Your task to perform on an android device: empty trash in the gmail app Image 0: 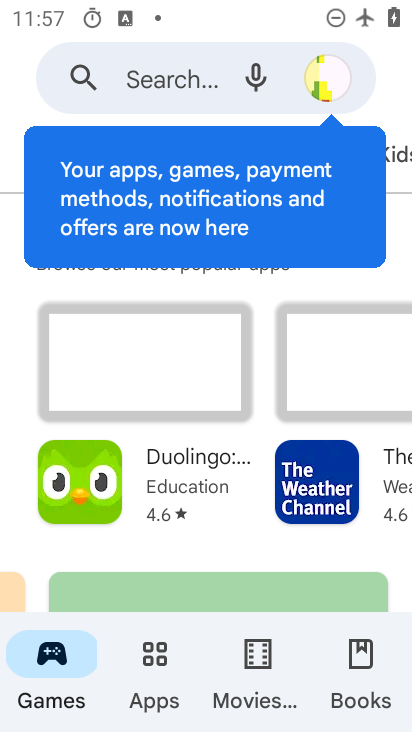
Step 0: press home button
Your task to perform on an android device: empty trash in the gmail app Image 1: 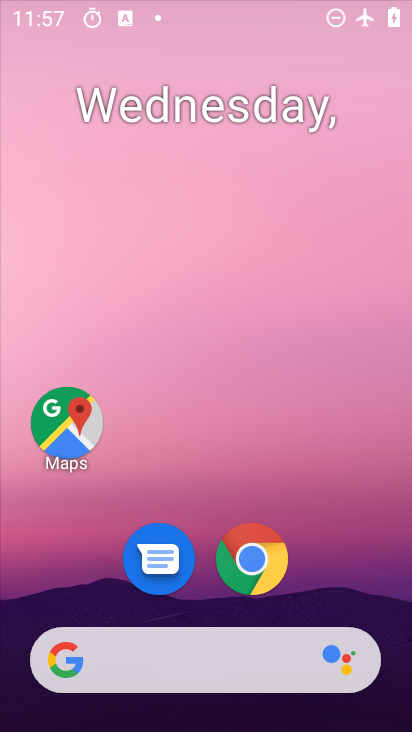
Step 1: drag from (216, 640) to (217, 126)
Your task to perform on an android device: empty trash in the gmail app Image 2: 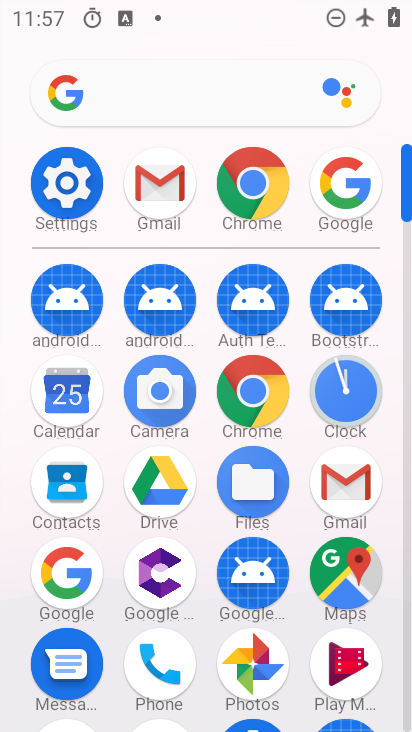
Step 2: click (356, 493)
Your task to perform on an android device: empty trash in the gmail app Image 3: 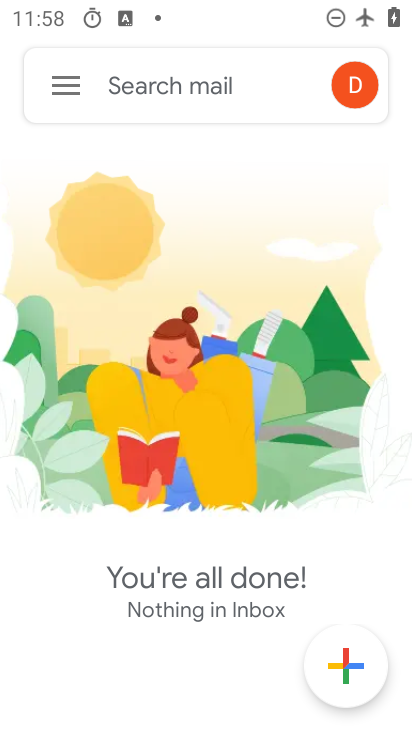
Step 3: click (77, 93)
Your task to perform on an android device: empty trash in the gmail app Image 4: 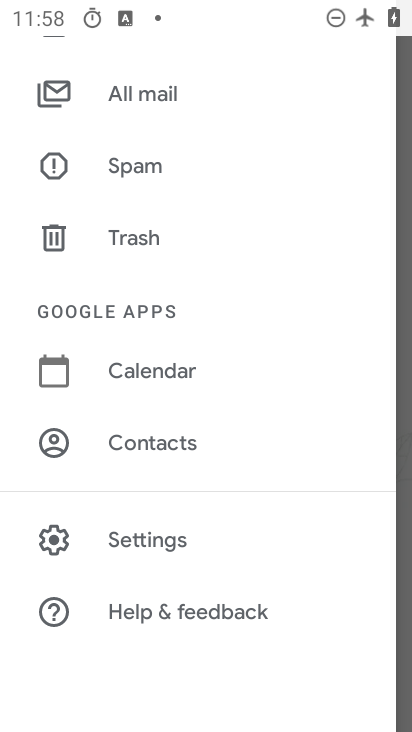
Step 4: click (157, 231)
Your task to perform on an android device: empty trash in the gmail app Image 5: 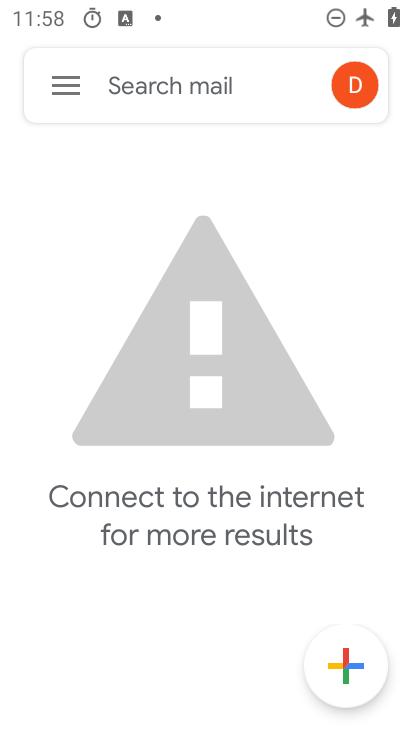
Step 5: task complete